Your task to perform on an android device: How much does a 2 bedroom apartment rent for in Seattle? Image 0: 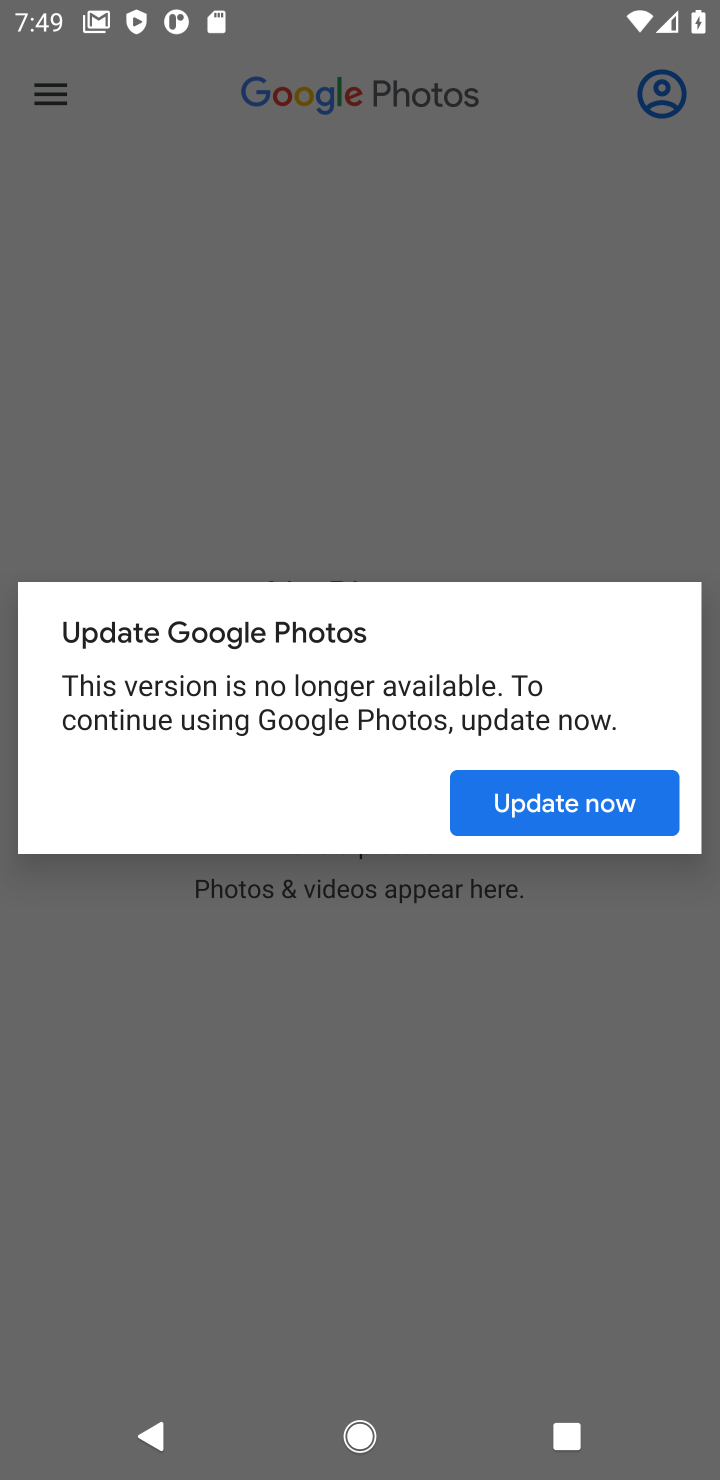
Step 0: press home button
Your task to perform on an android device: How much does a 2 bedroom apartment rent for in Seattle? Image 1: 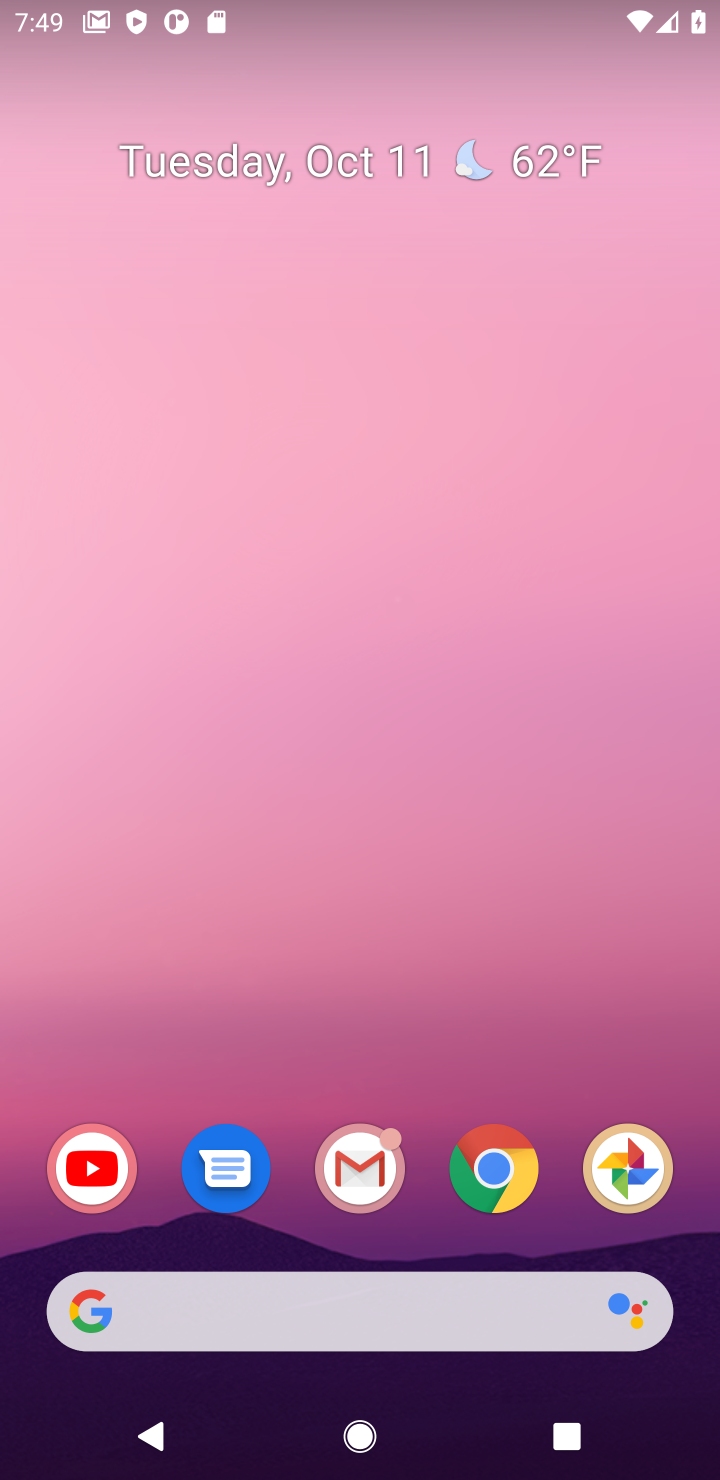
Step 1: click (509, 1157)
Your task to perform on an android device: How much does a 2 bedroom apartment rent for in Seattle? Image 2: 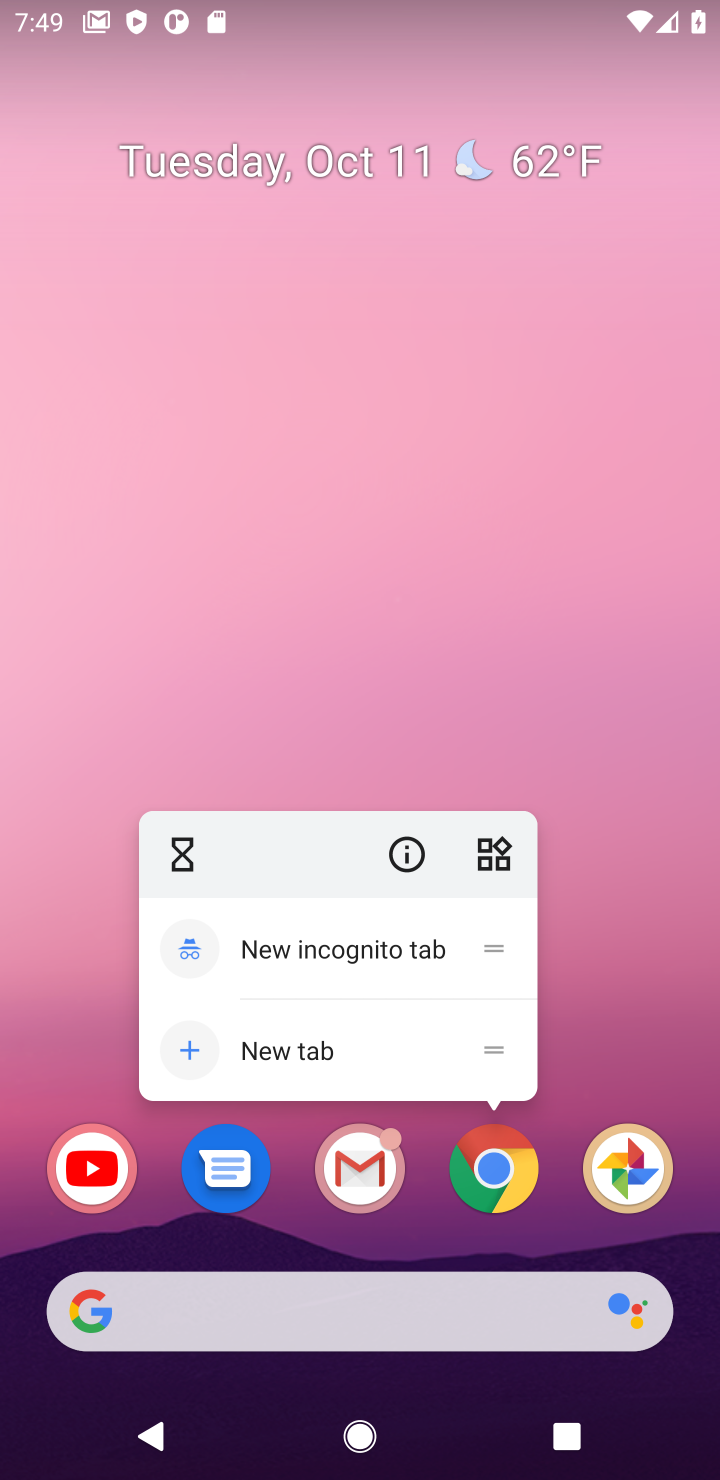
Step 2: click (494, 1170)
Your task to perform on an android device: How much does a 2 bedroom apartment rent for in Seattle? Image 3: 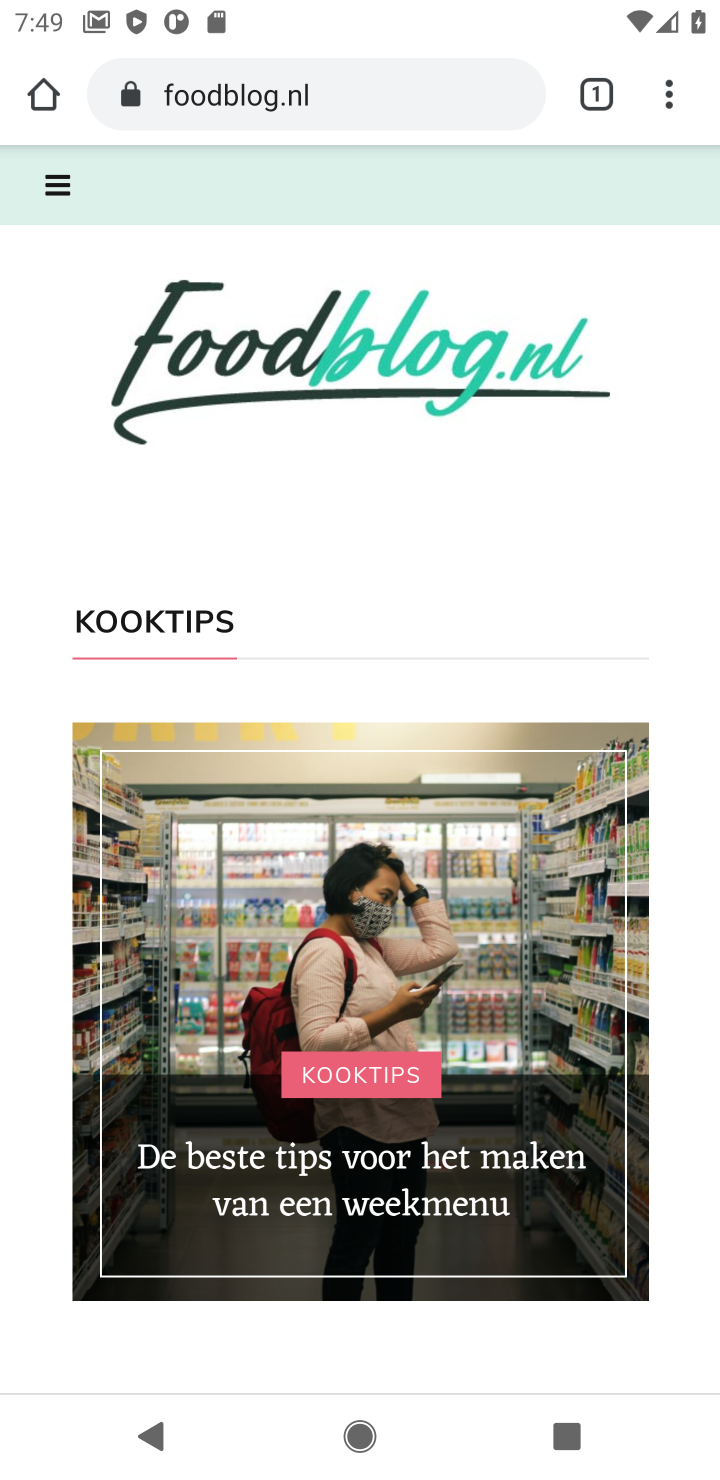
Step 3: click (260, 96)
Your task to perform on an android device: How much does a 2 bedroom apartment rent for in Seattle? Image 4: 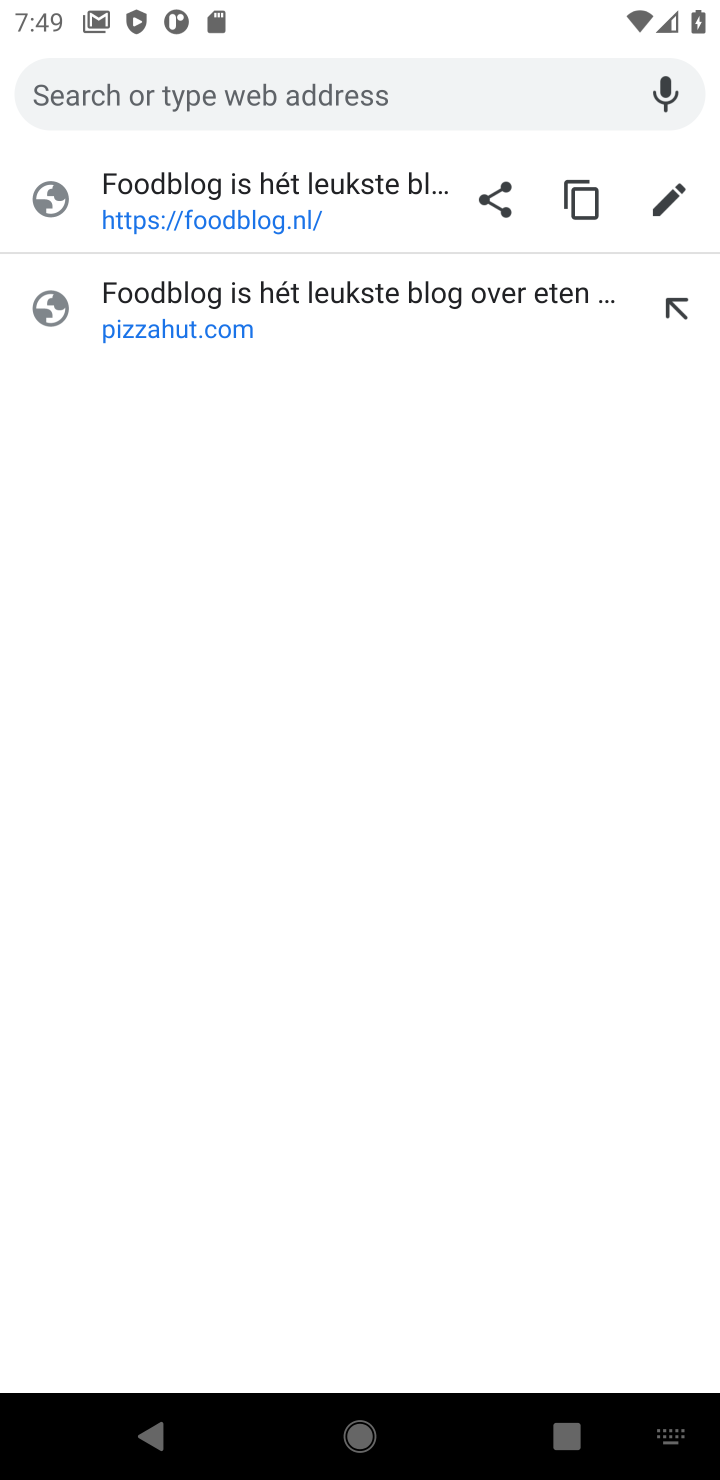
Step 4: type "2 bedroom apartment rent in seattle"
Your task to perform on an android device: How much does a 2 bedroom apartment rent for in Seattle? Image 5: 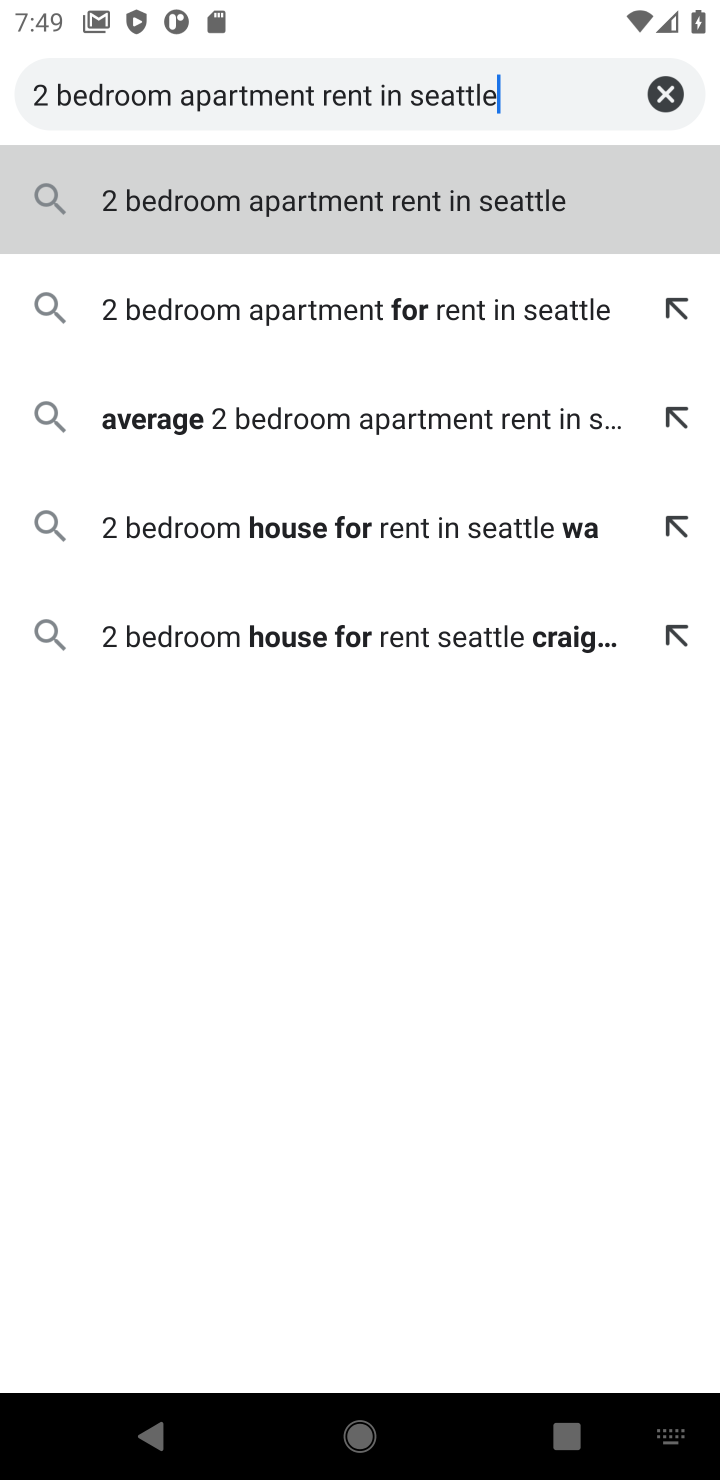
Step 5: click (374, 204)
Your task to perform on an android device: How much does a 2 bedroom apartment rent for in Seattle? Image 6: 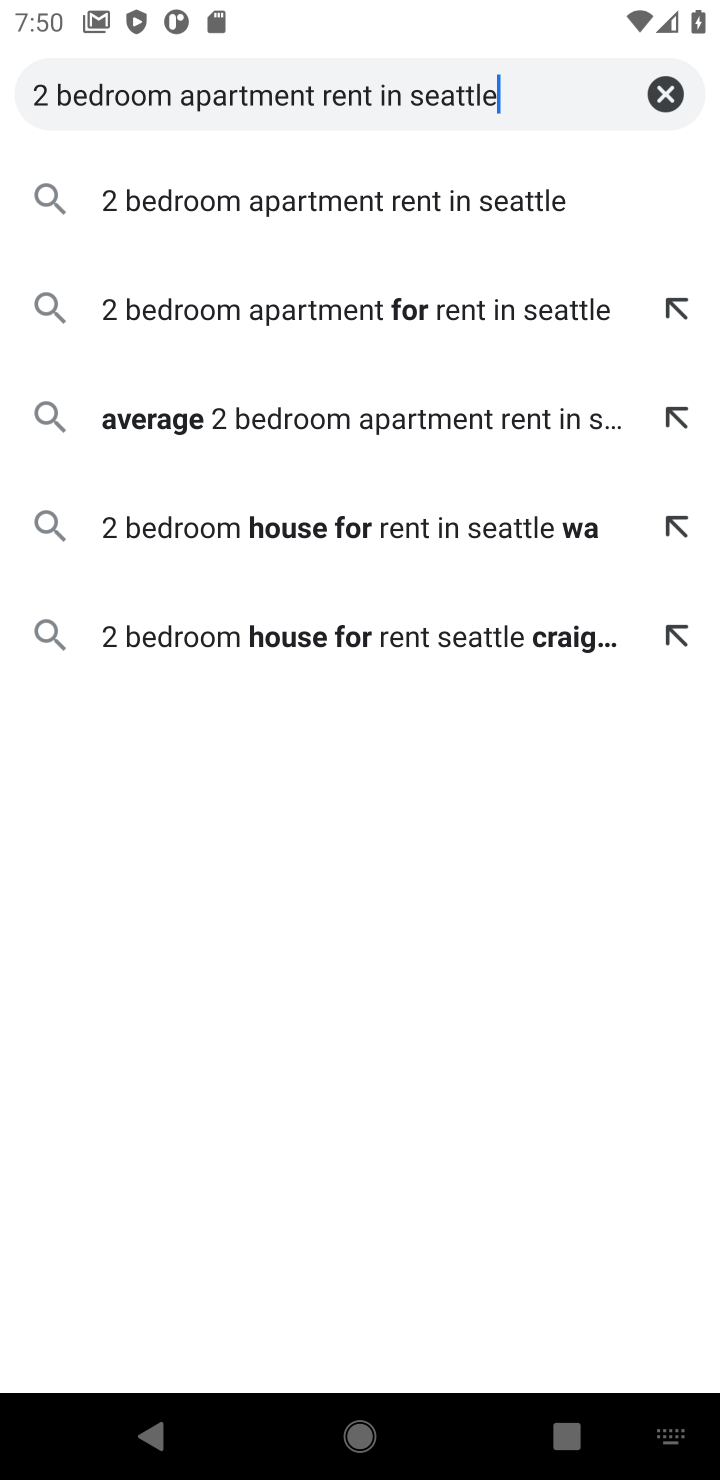
Step 6: click (551, 205)
Your task to perform on an android device: How much does a 2 bedroom apartment rent for in Seattle? Image 7: 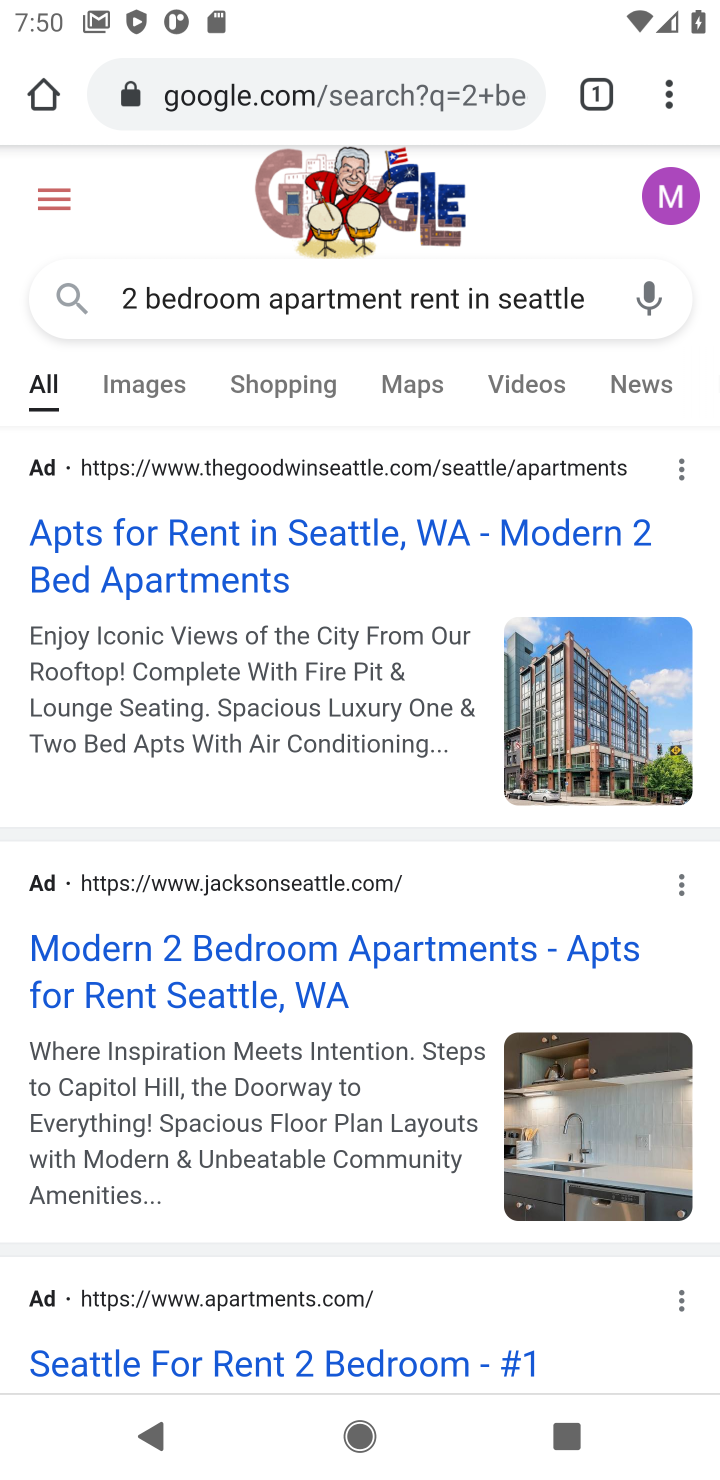
Step 7: click (207, 542)
Your task to perform on an android device: How much does a 2 bedroom apartment rent for in Seattle? Image 8: 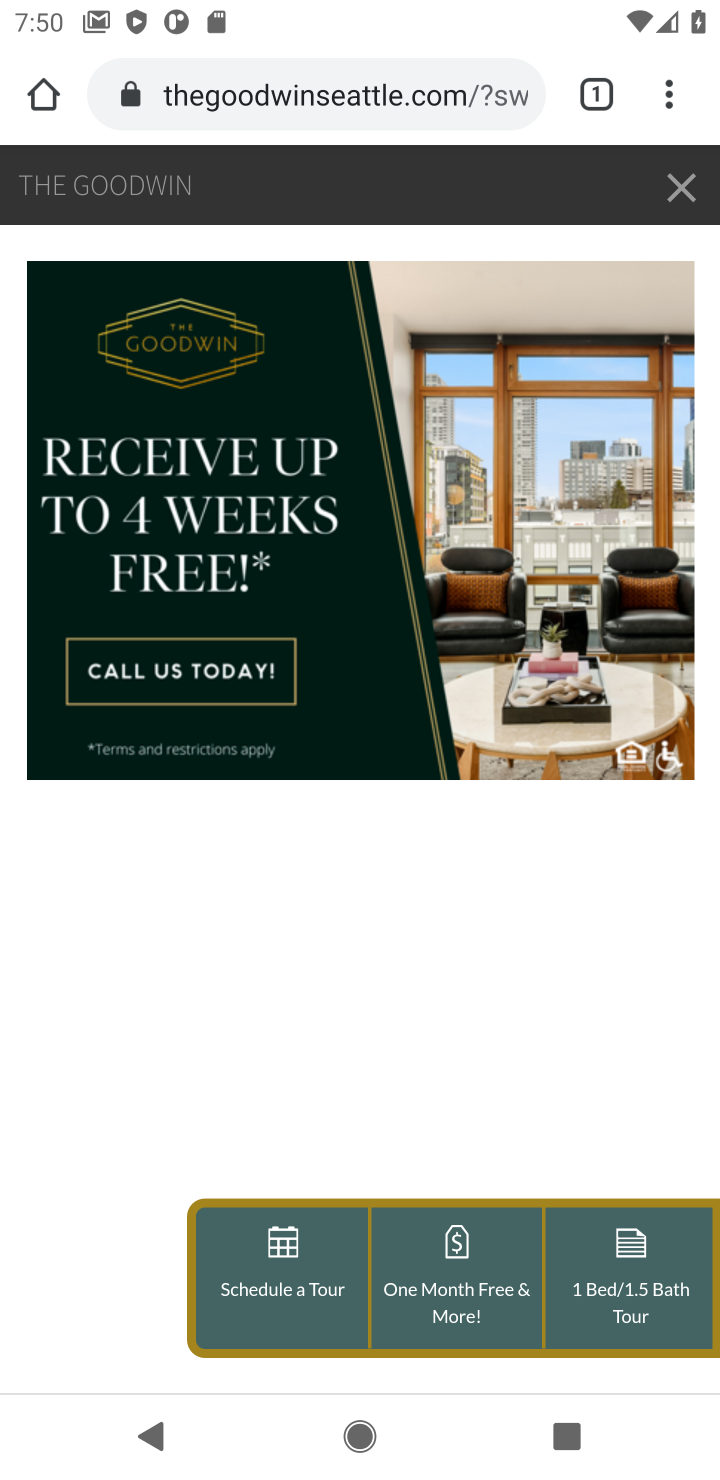
Step 8: click (679, 193)
Your task to perform on an android device: How much does a 2 bedroom apartment rent for in Seattle? Image 9: 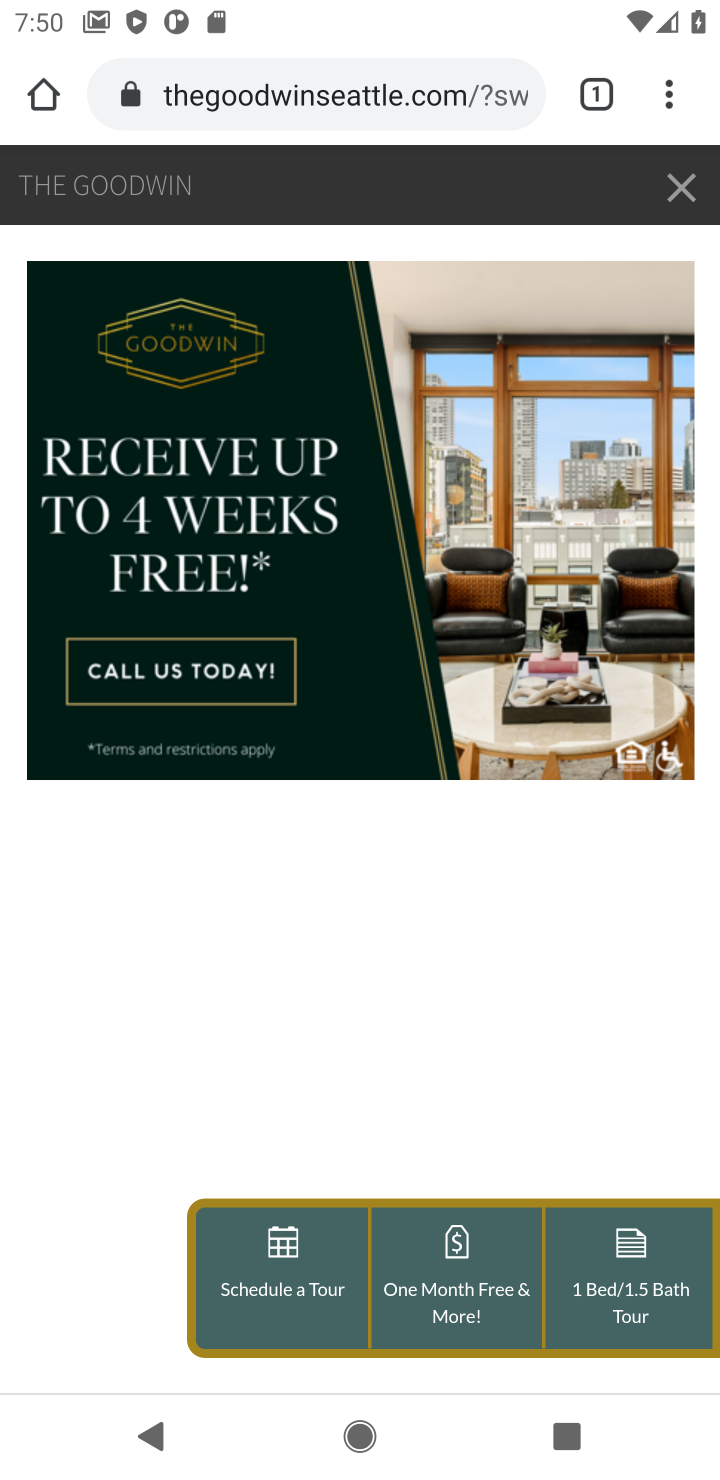
Step 9: drag from (317, 1008) to (368, 579)
Your task to perform on an android device: How much does a 2 bedroom apartment rent for in Seattle? Image 10: 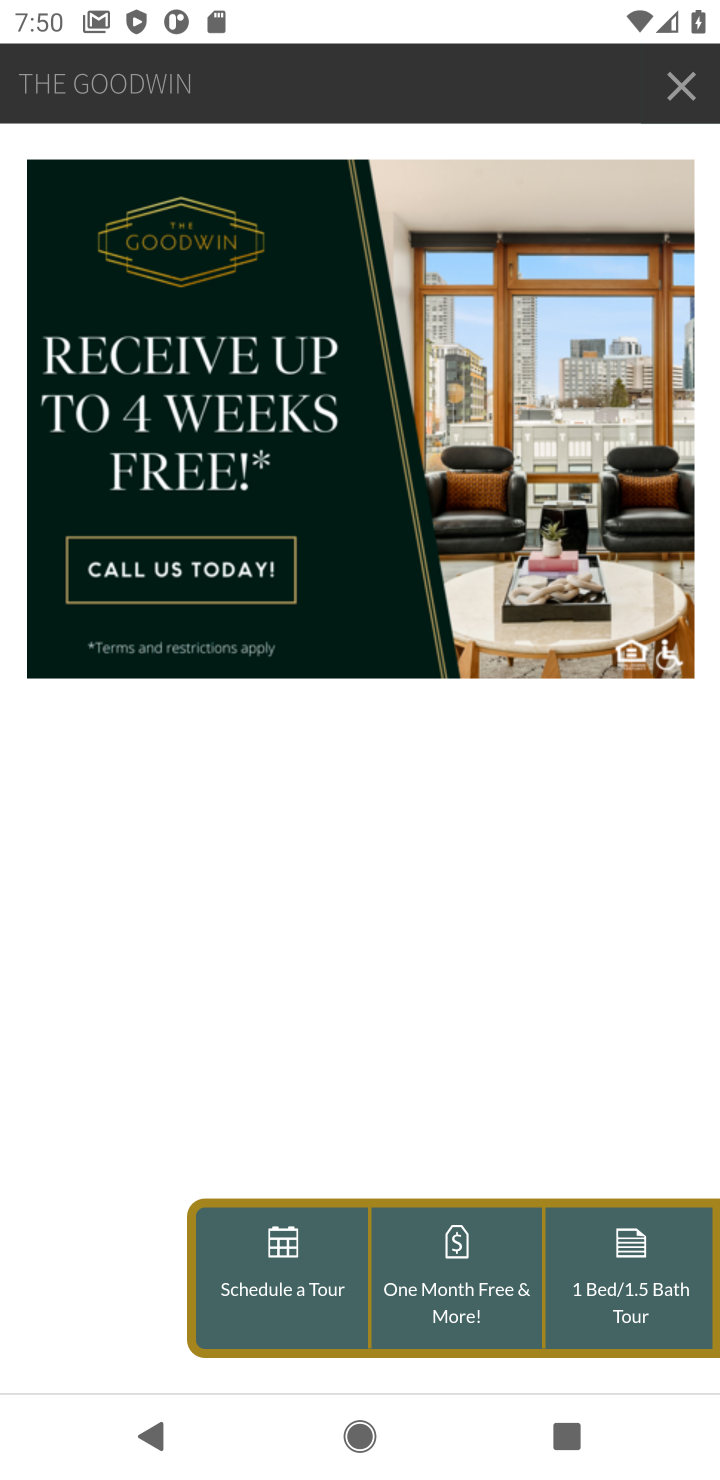
Step 10: drag from (316, 909) to (412, 544)
Your task to perform on an android device: How much does a 2 bedroom apartment rent for in Seattle? Image 11: 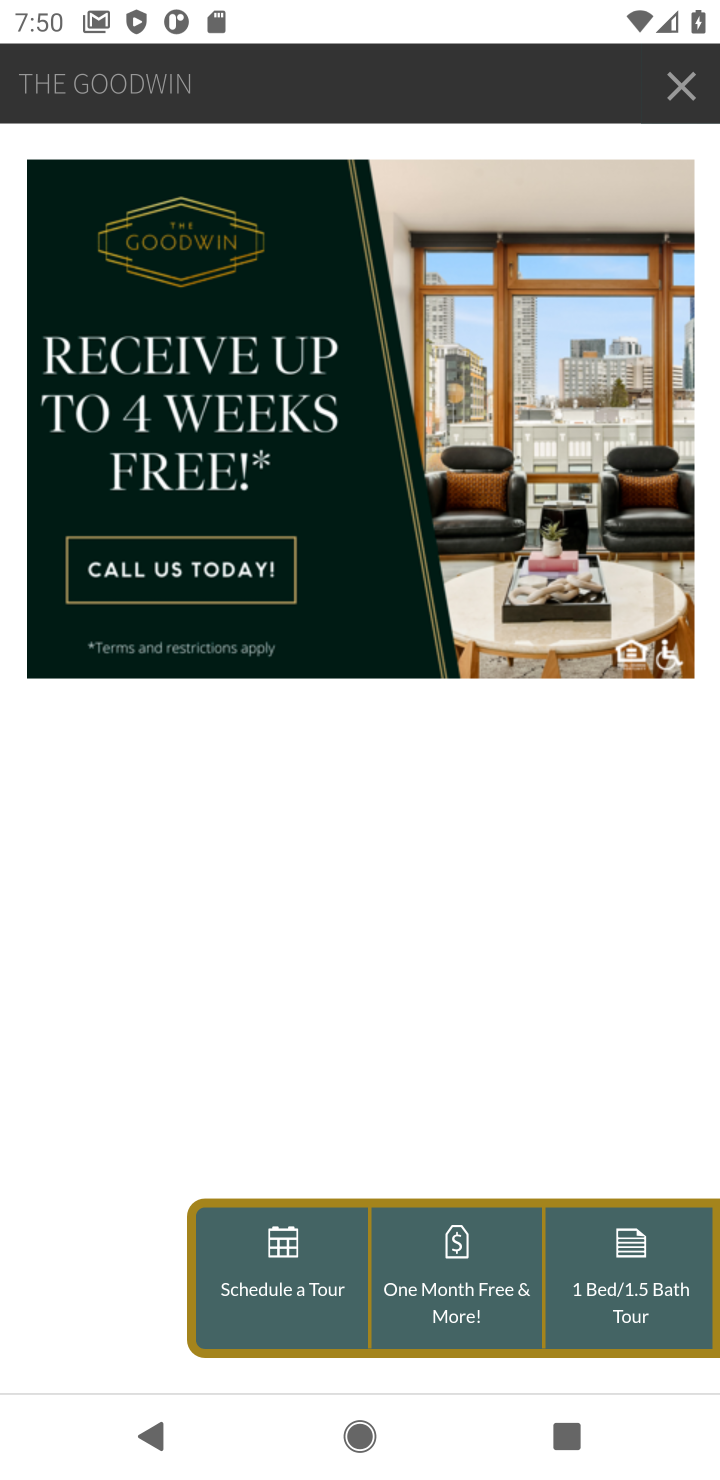
Step 11: drag from (520, 732) to (477, 490)
Your task to perform on an android device: How much does a 2 bedroom apartment rent for in Seattle? Image 12: 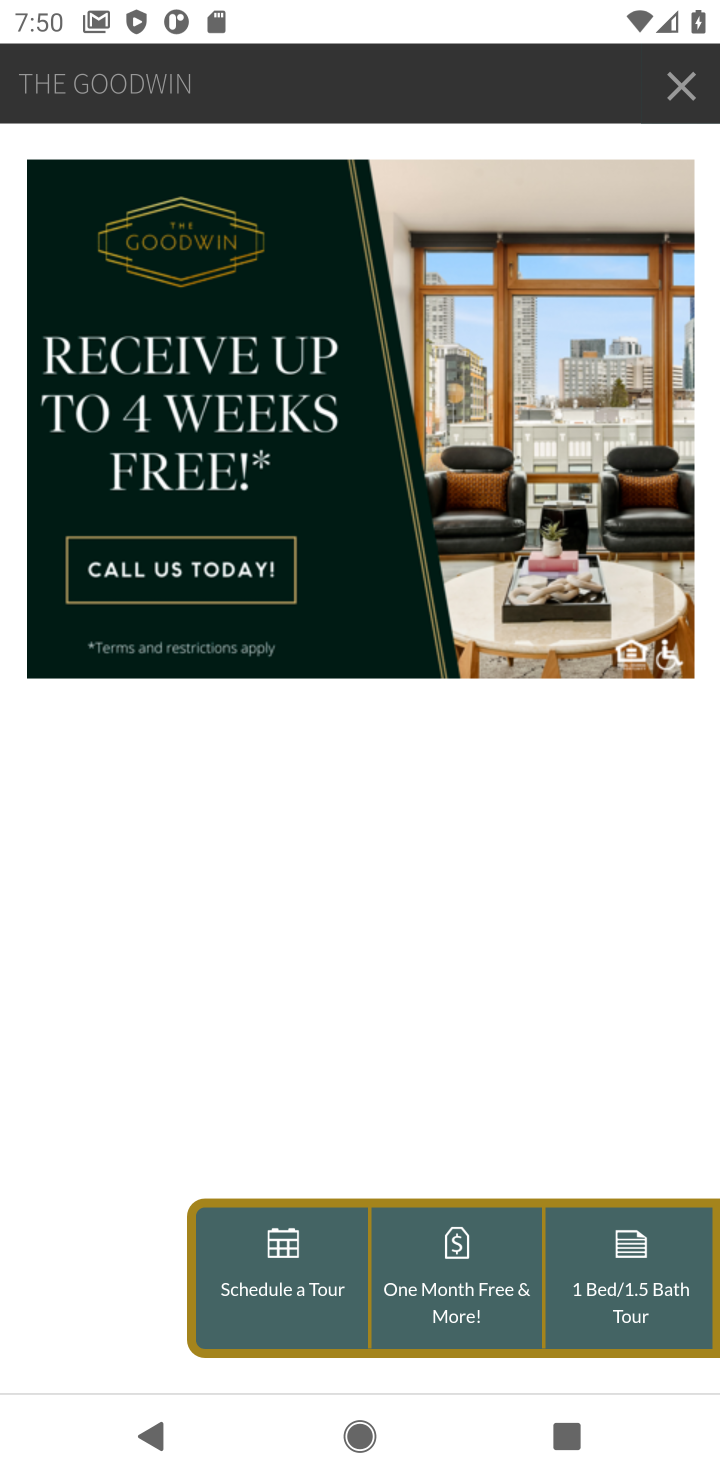
Step 12: press back button
Your task to perform on an android device: How much does a 2 bedroom apartment rent for in Seattle? Image 13: 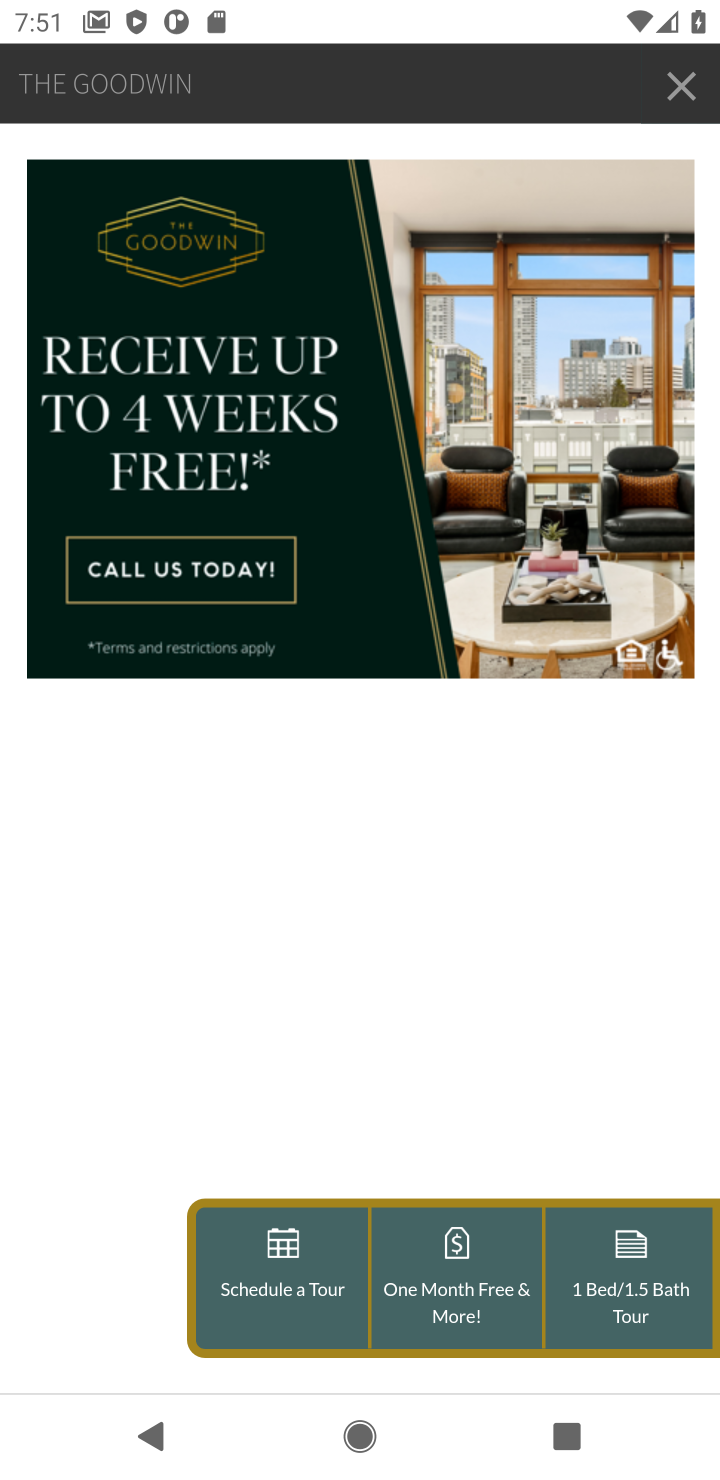
Step 13: click (676, 90)
Your task to perform on an android device: How much does a 2 bedroom apartment rent for in Seattle? Image 14: 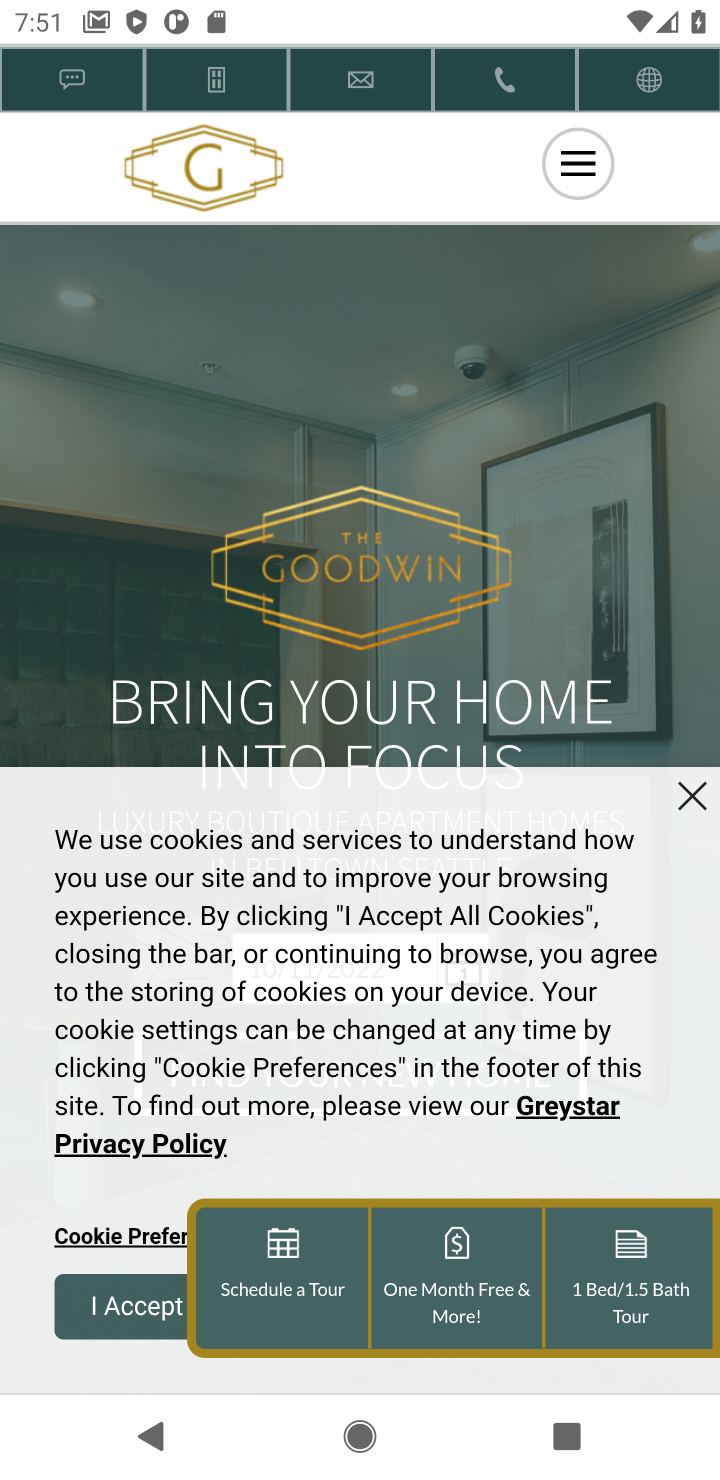
Step 14: click (690, 793)
Your task to perform on an android device: How much does a 2 bedroom apartment rent for in Seattle? Image 15: 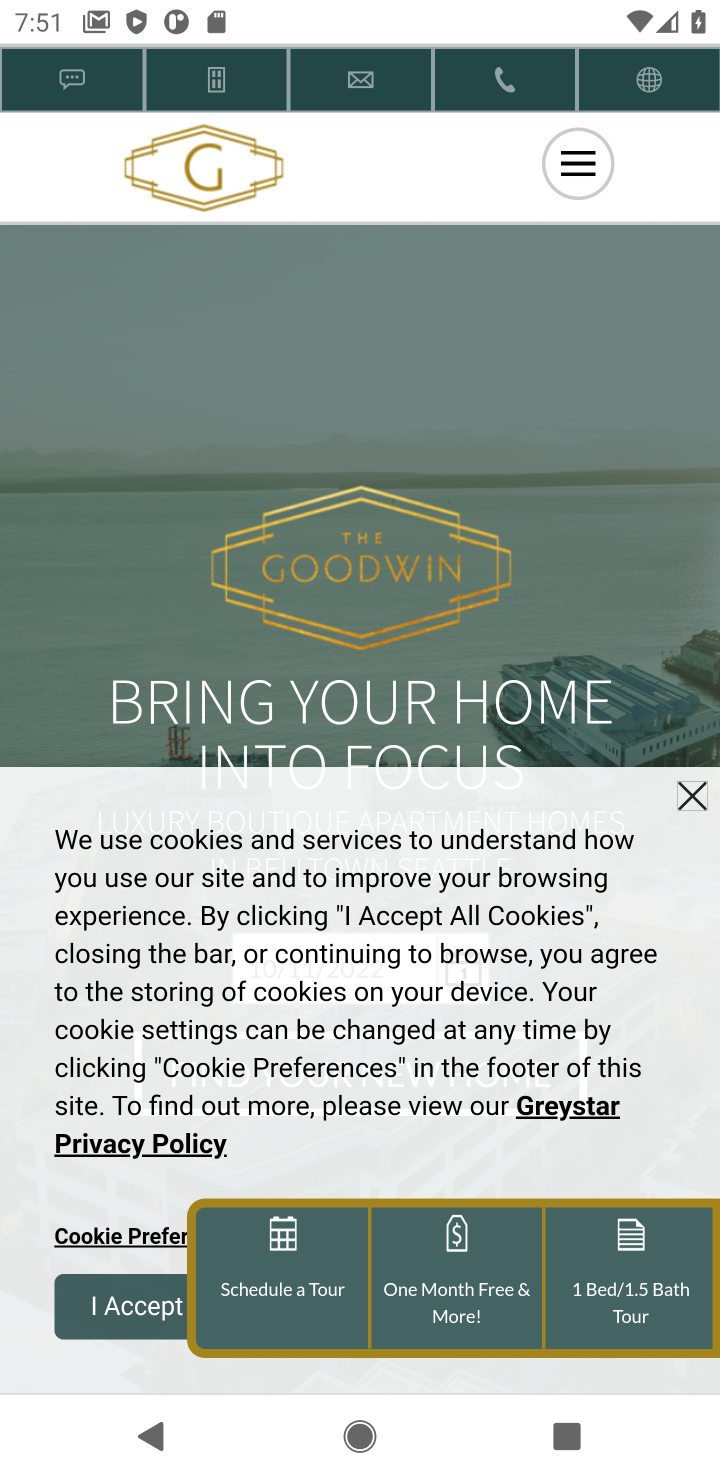
Step 15: click (689, 794)
Your task to perform on an android device: How much does a 2 bedroom apartment rent for in Seattle? Image 16: 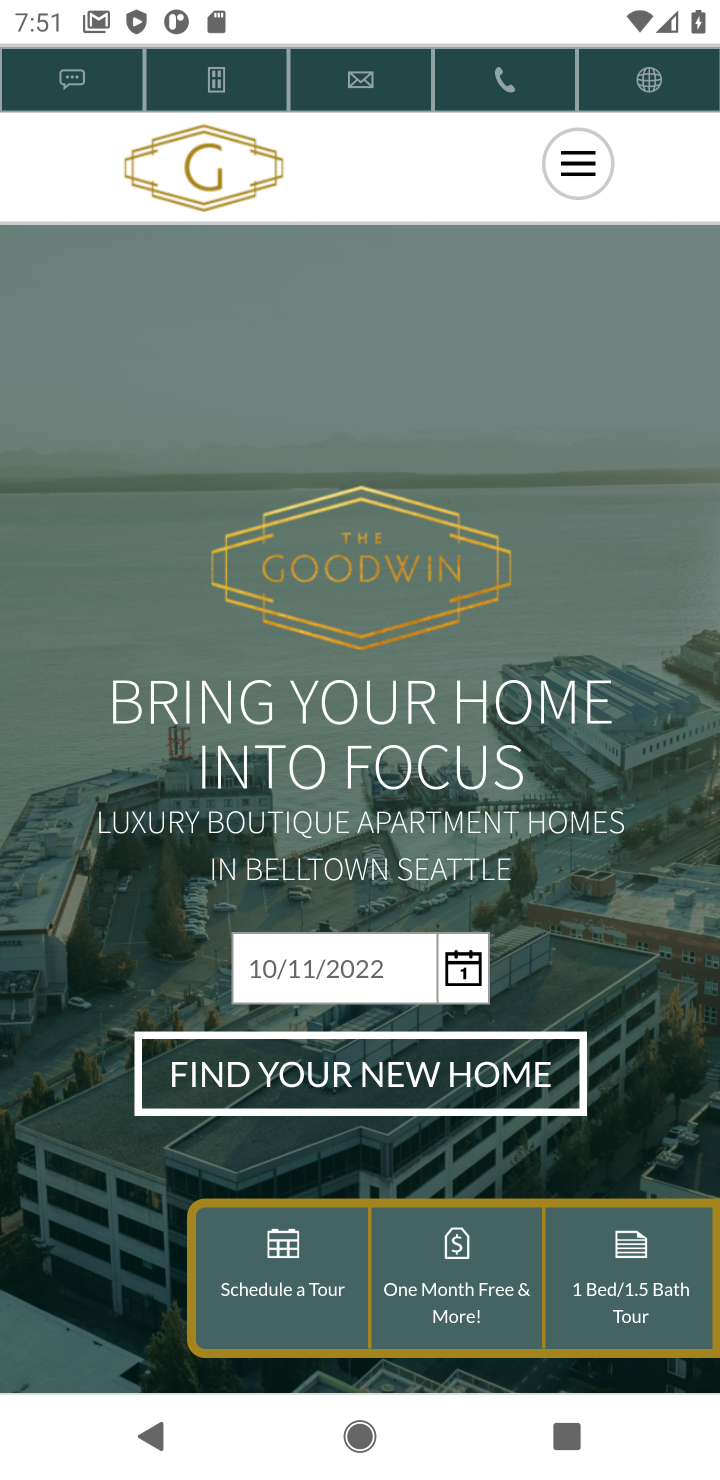
Step 16: click (626, 1332)
Your task to perform on an android device: How much does a 2 bedroom apartment rent for in Seattle? Image 17: 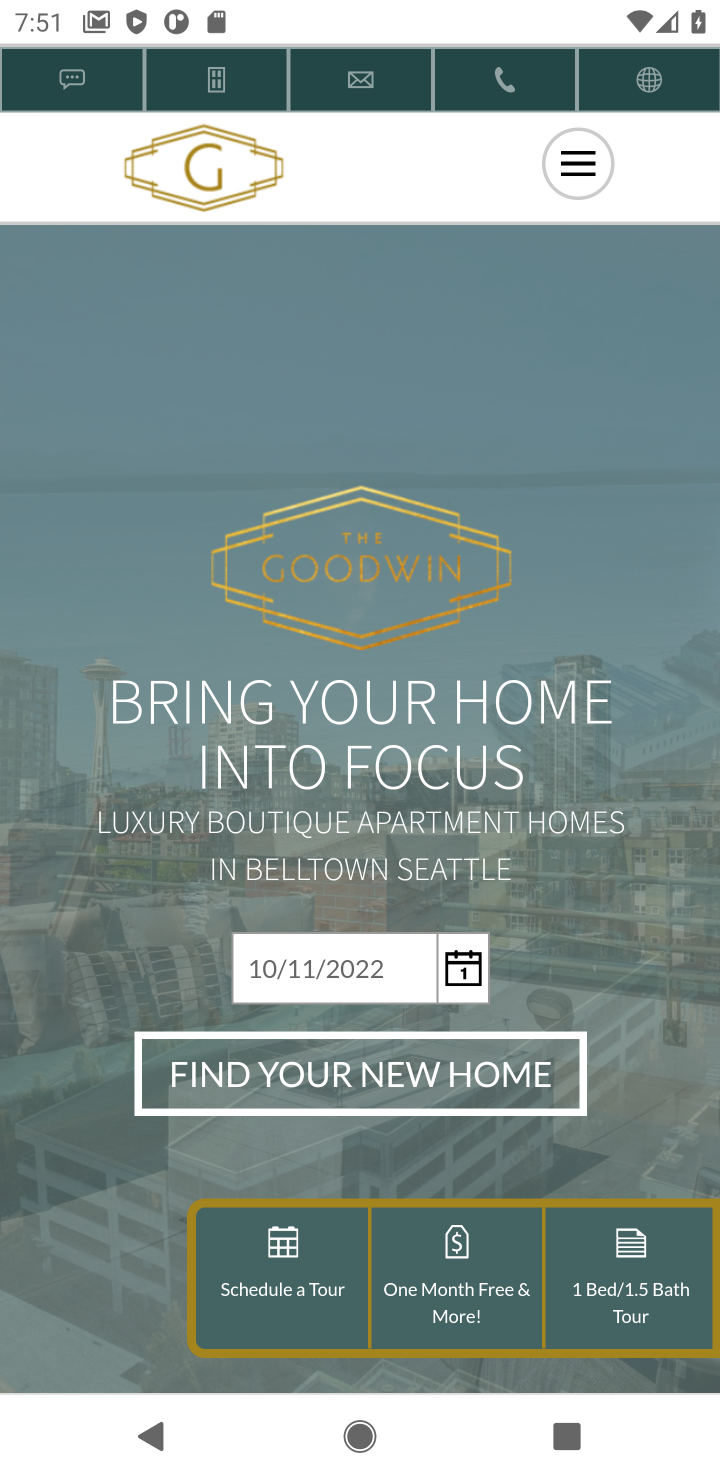
Step 17: drag from (135, 746) to (145, 456)
Your task to perform on an android device: How much does a 2 bedroom apartment rent for in Seattle? Image 18: 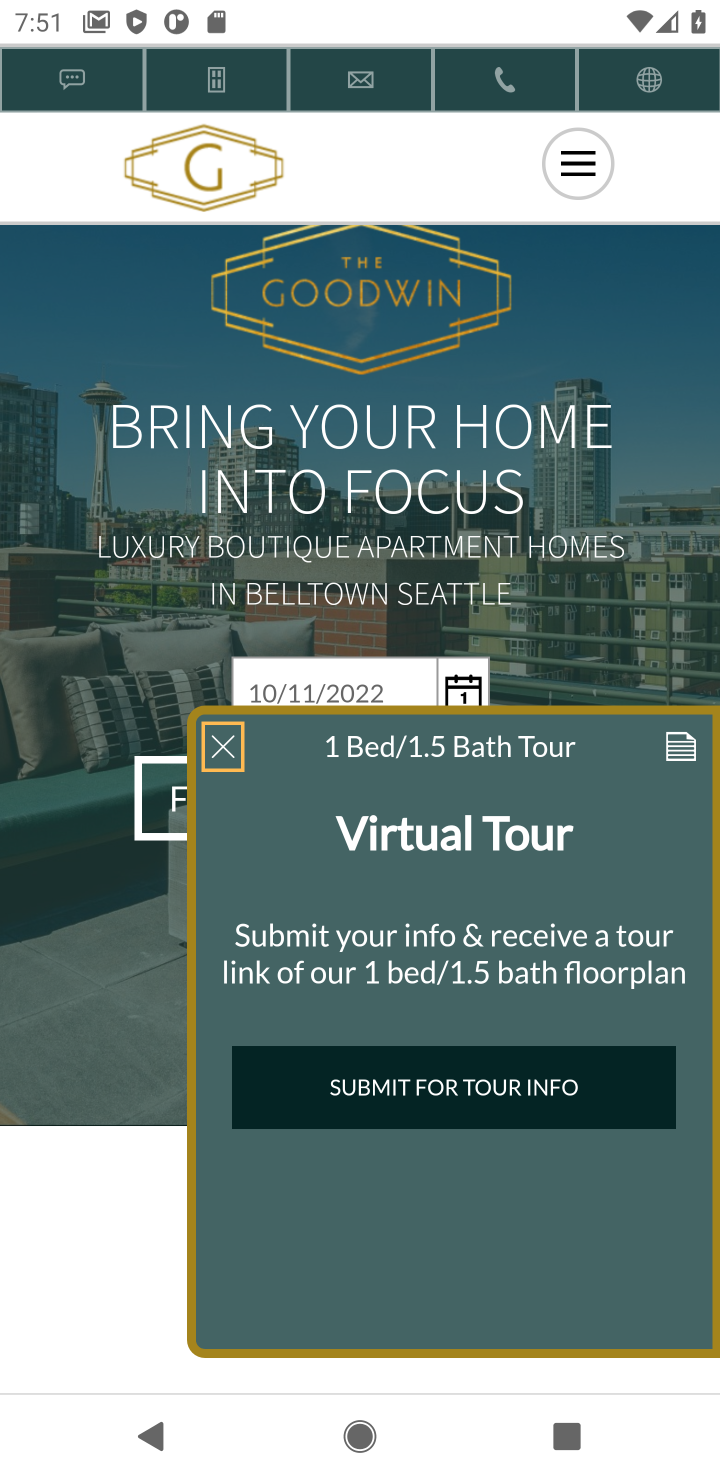
Step 18: click (229, 753)
Your task to perform on an android device: How much does a 2 bedroom apartment rent for in Seattle? Image 19: 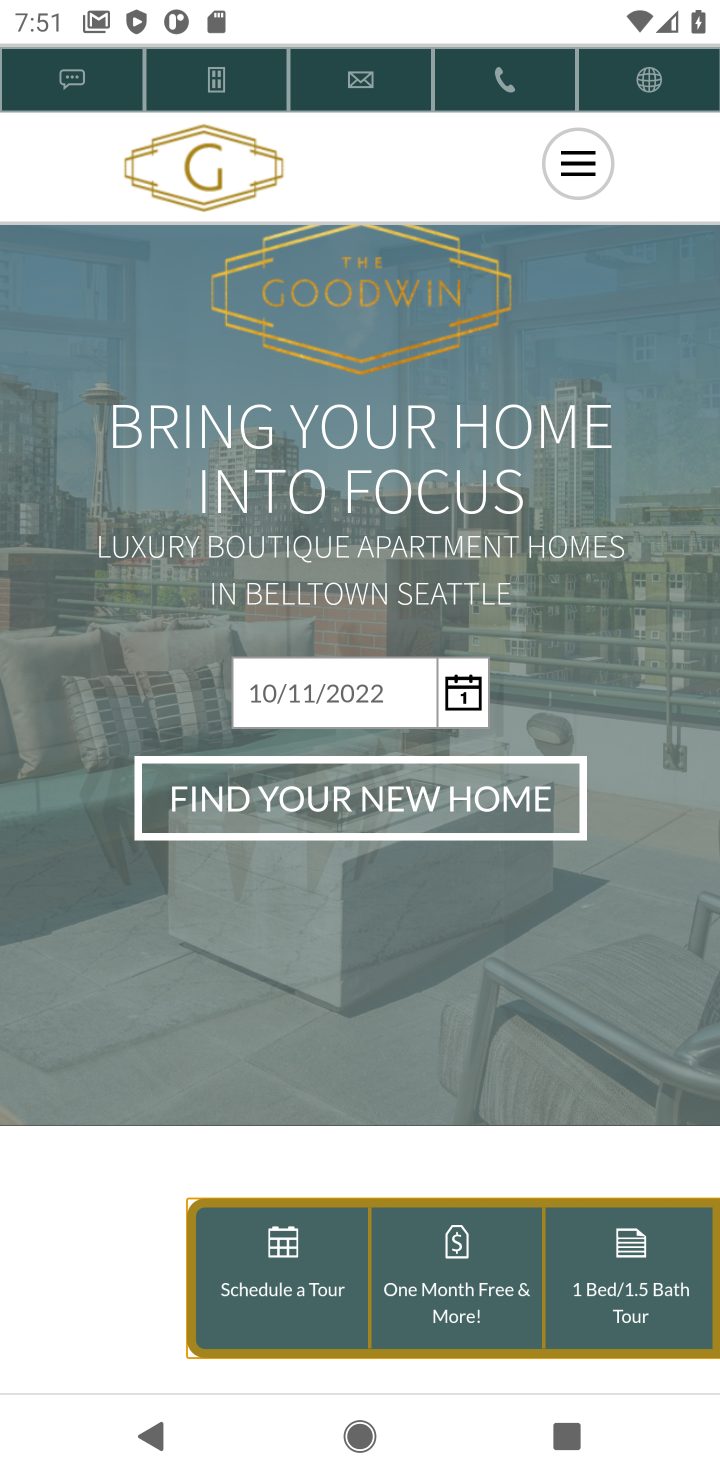
Step 19: drag from (267, 1016) to (286, 536)
Your task to perform on an android device: How much does a 2 bedroom apartment rent for in Seattle? Image 20: 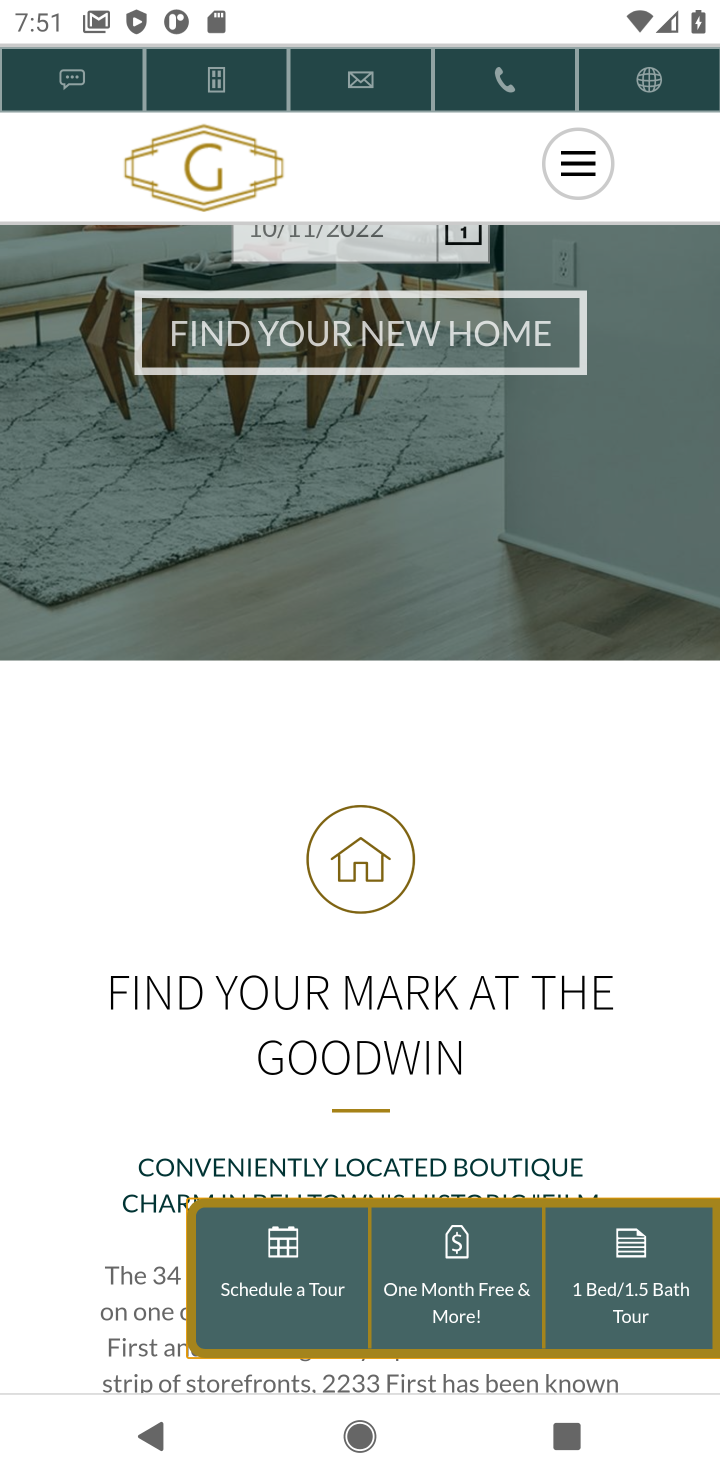
Step 20: drag from (548, 722) to (548, 520)
Your task to perform on an android device: How much does a 2 bedroom apartment rent for in Seattle? Image 21: 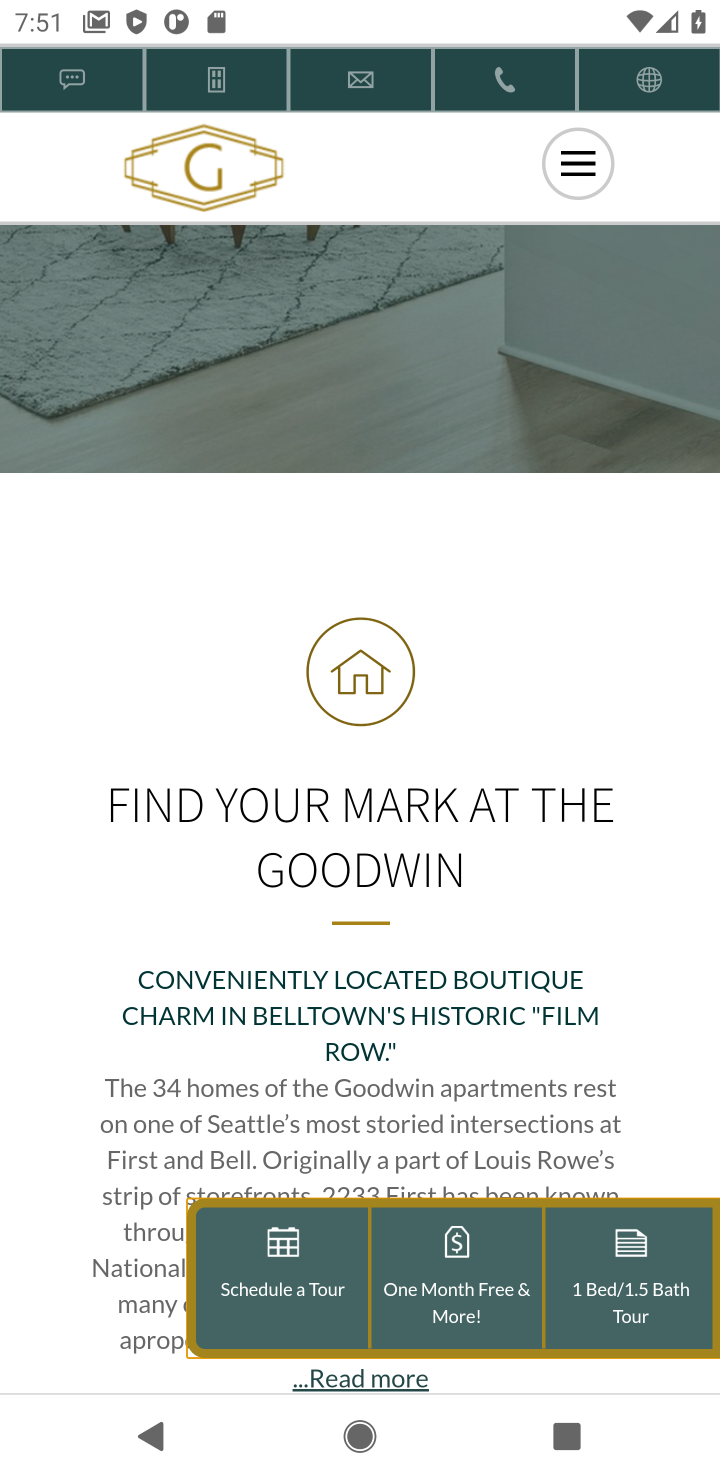
Step 21: drag from (523, 896) to (520, 558)
Your task to perform on an android device: How much does a 2 bedroom apartment rent for in Seattle? Image 22: 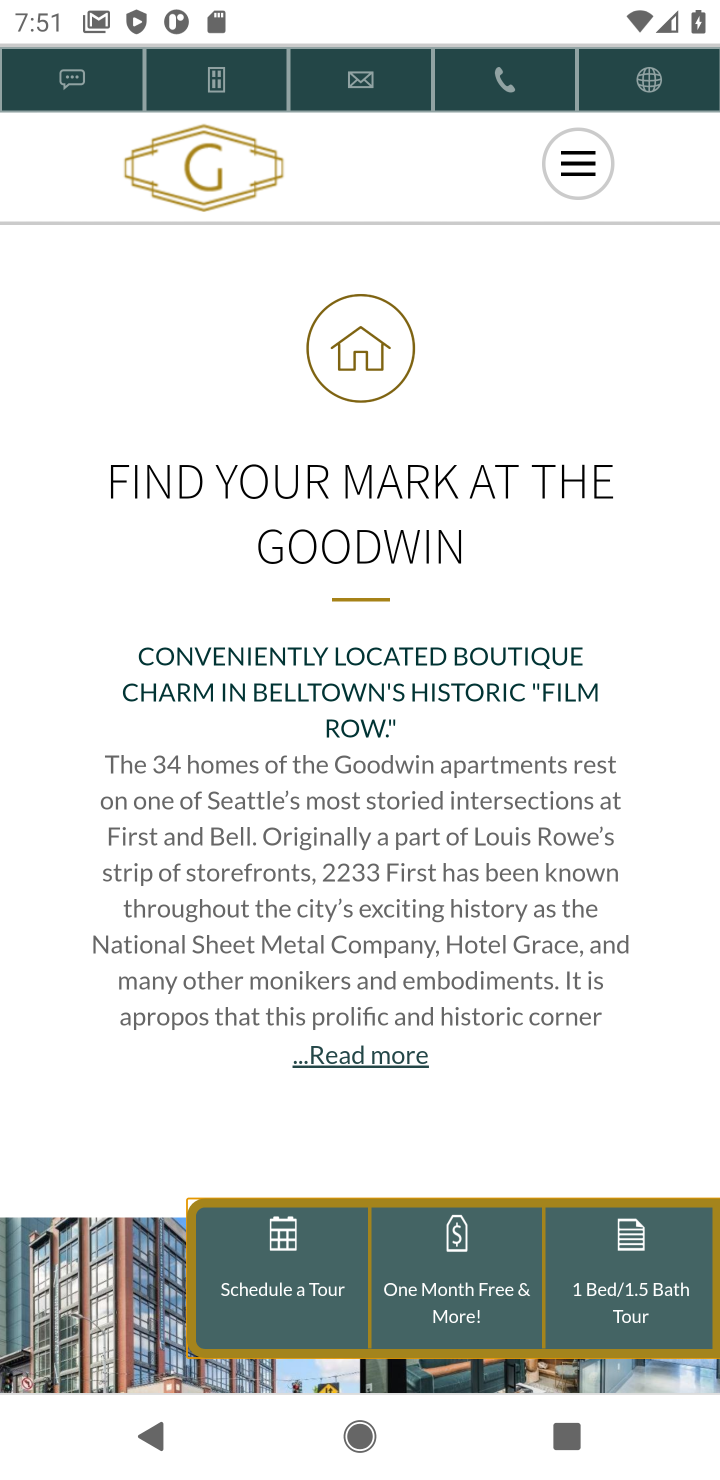
Step 22: drag from (396, 1061) to (414, 561)
Your task to perform on an android device: How much does a 2 bedroom apartment rent for in Seattle? Image 23: 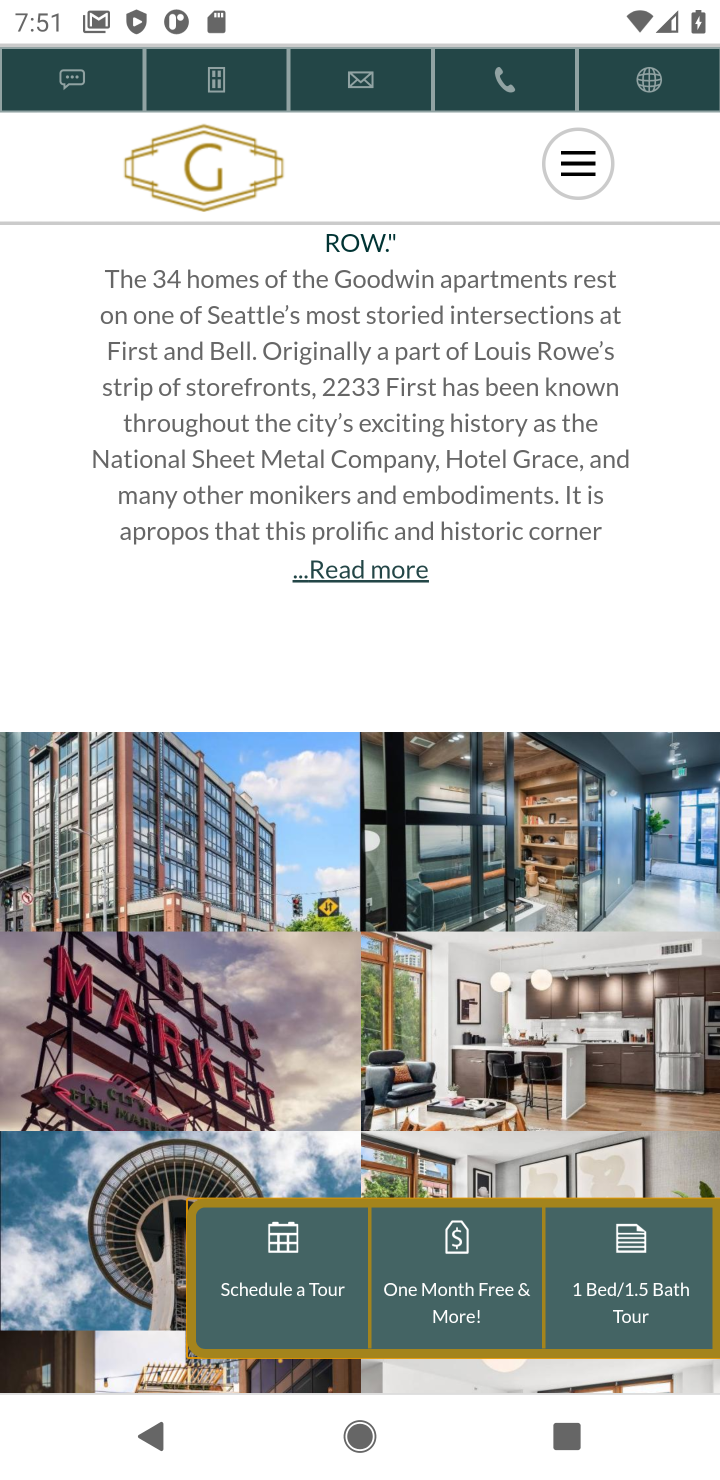
Step 23: drag from (534, 900) to (591, 581)
Your task to perform on an android device: How much does a 2 bedroom apartment rent for in Seattle? Image 24: 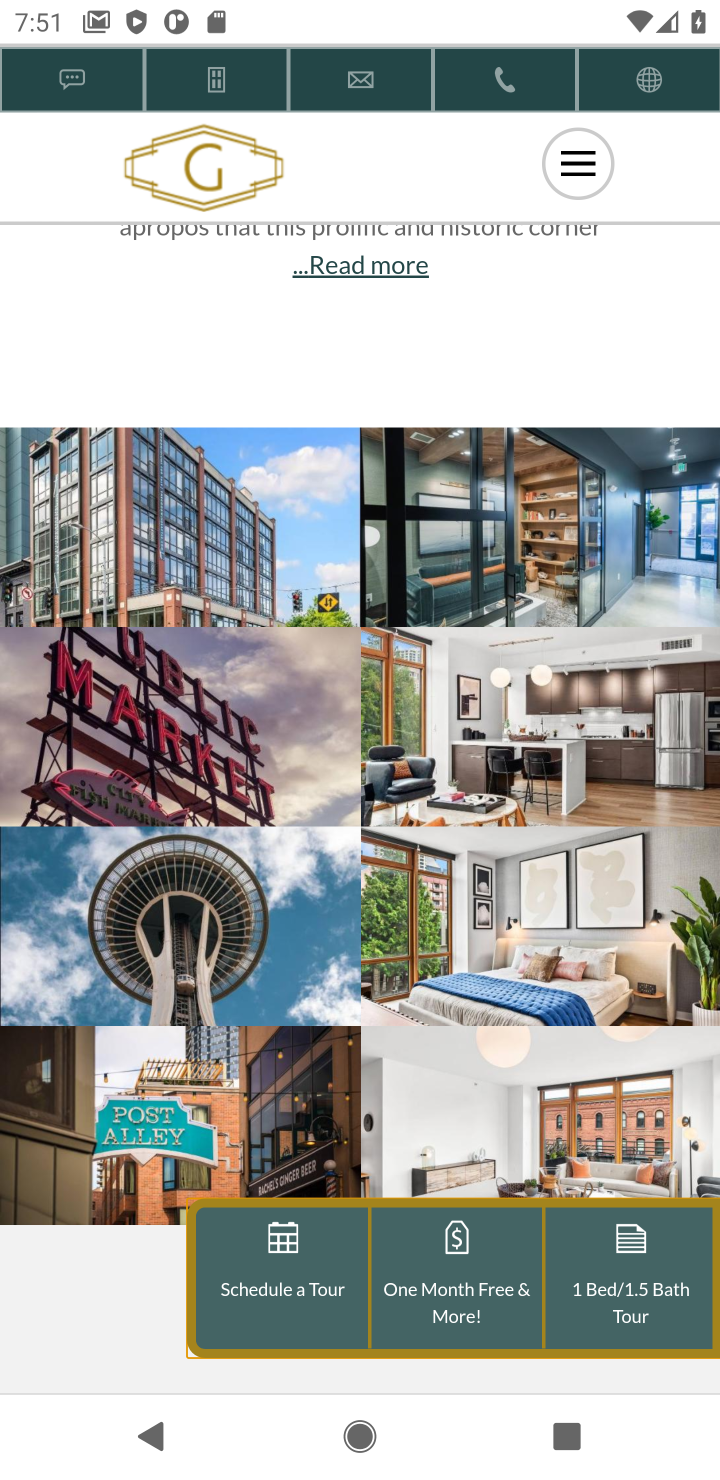
Step 24: drag from (444, 777) to (488, 586)
Your task to perform on an android device: How much does a 2 bedroom apartment rent for in Seattle? Image 25: 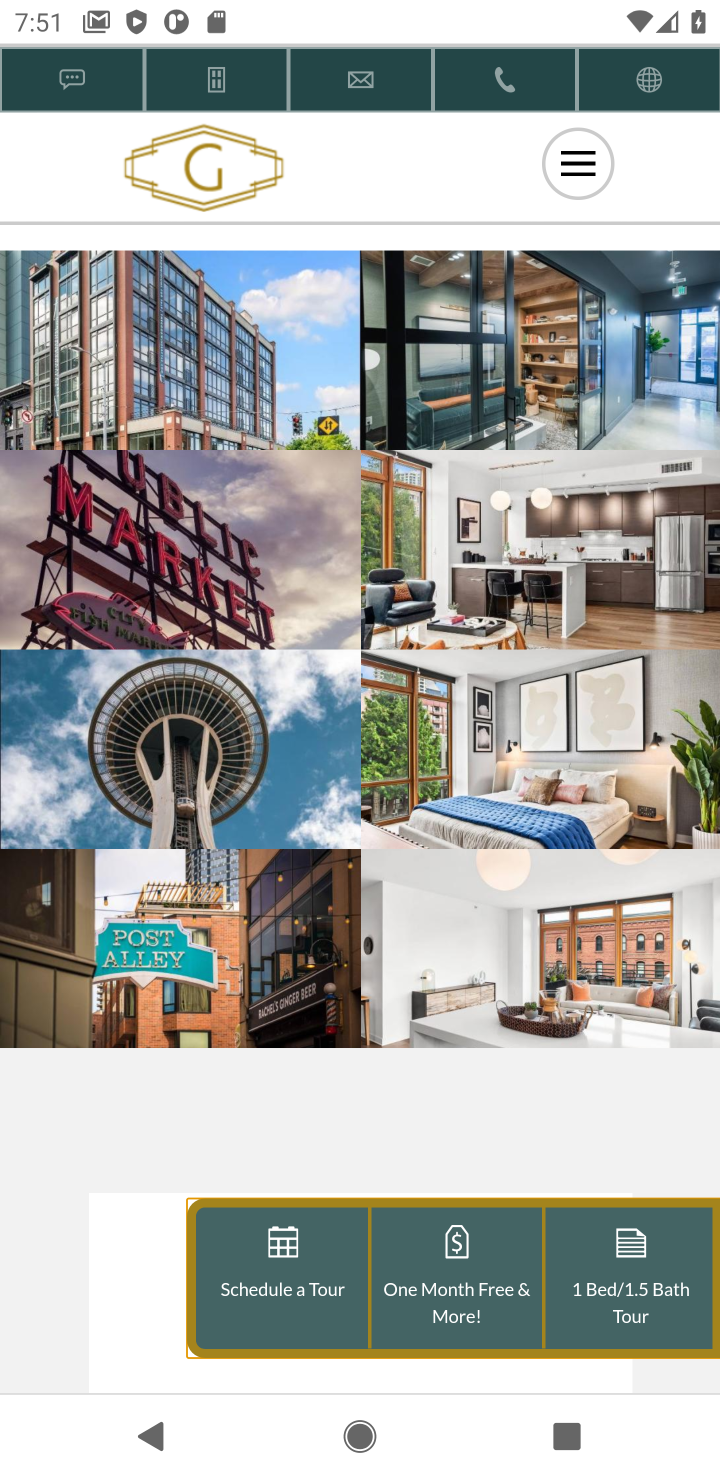
Step 25: click (508, 955)
Your task to perform on an android device: How much does a 2 bedroom apartment rent for in Seattle? Image 26: 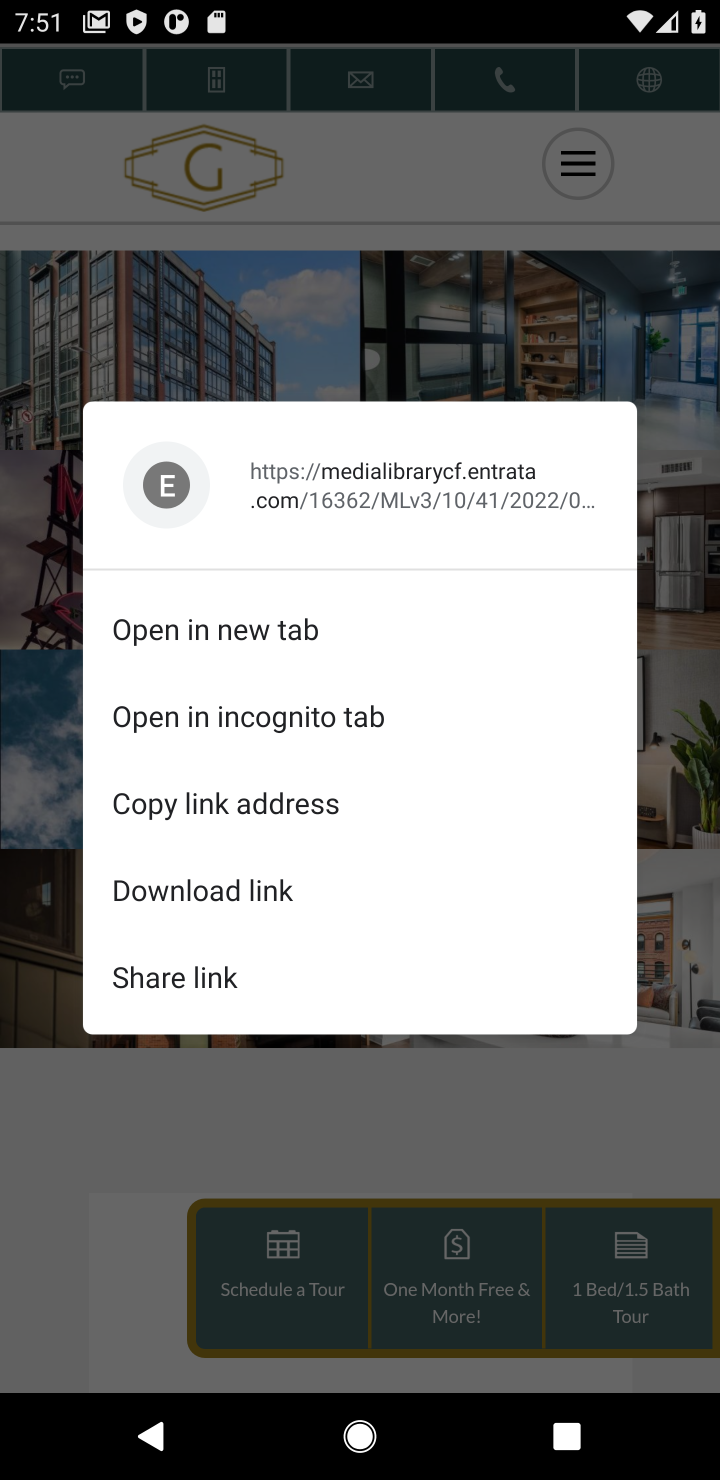
Step 26: click (249, 634)
Your task to perform on an android device: How much does a 2 bedroom apartment rent for in Seattle? Image 27: 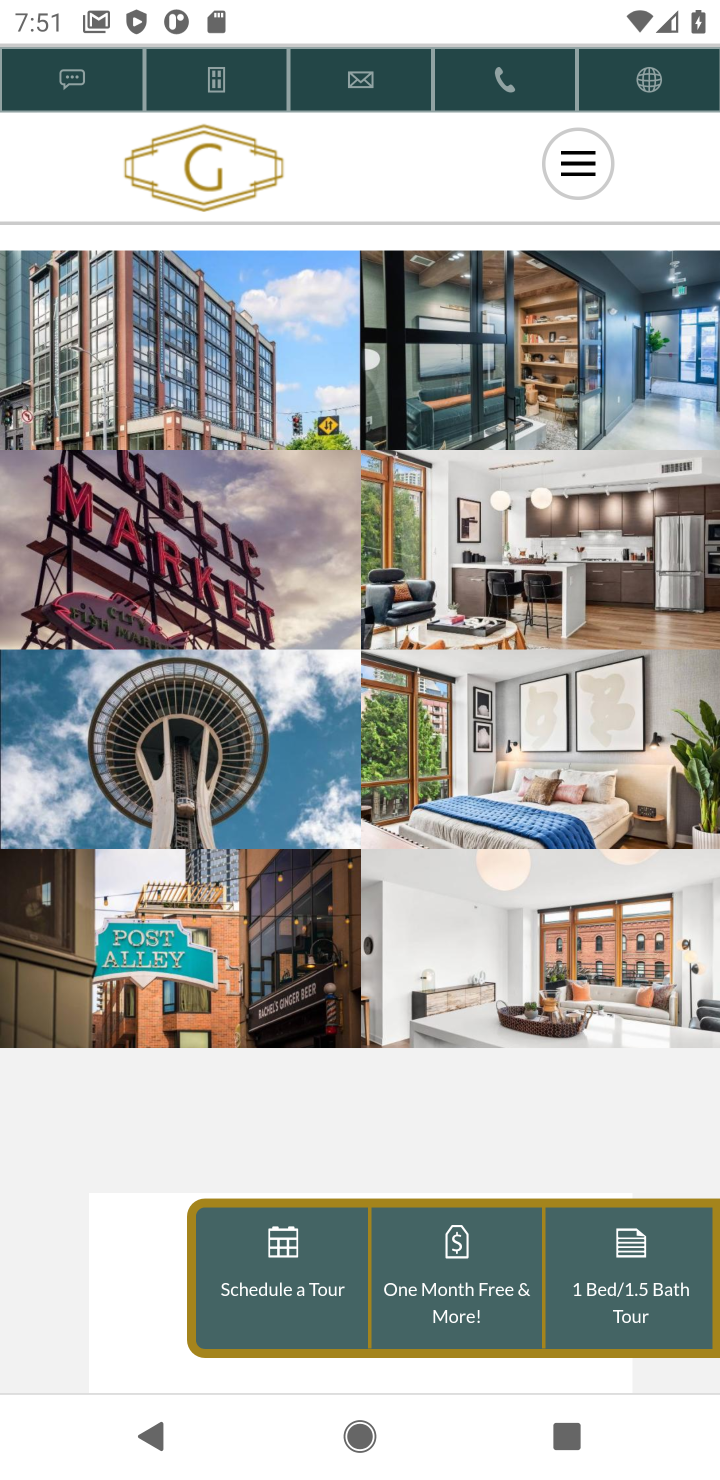
Step 27: task complete